Your task to perform on an android device: Search for usb-a on newegg.com, select the first entry, add it to the cart, then select checkout. Image 0: 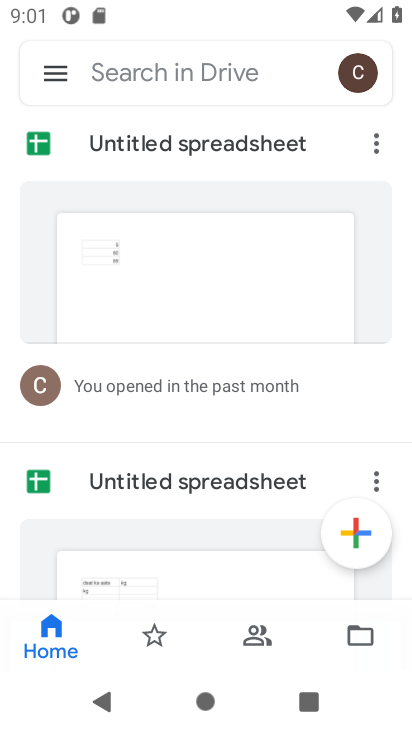
Step 0: press home button
Your task to perform on an android device: Search for usb-a on newegg.com, select the first entry, add it to the cart, then select checkout. Image 1: 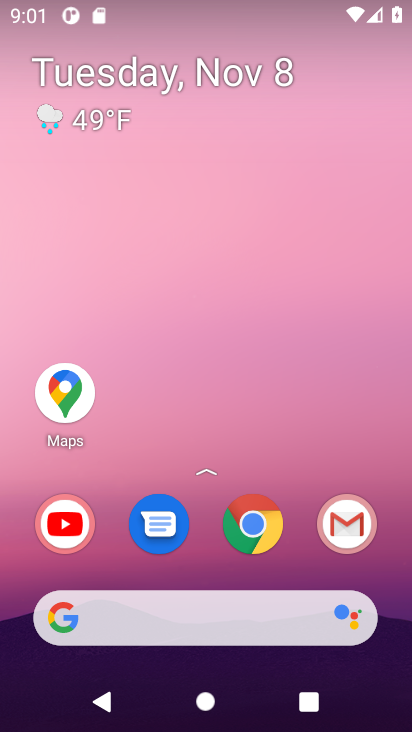
Step 1: click (243, 518)
Your task to perform on an android device: Search for usb-a on newegg.com, select the first entry, add it to the cart, then select checkout. Image 2: 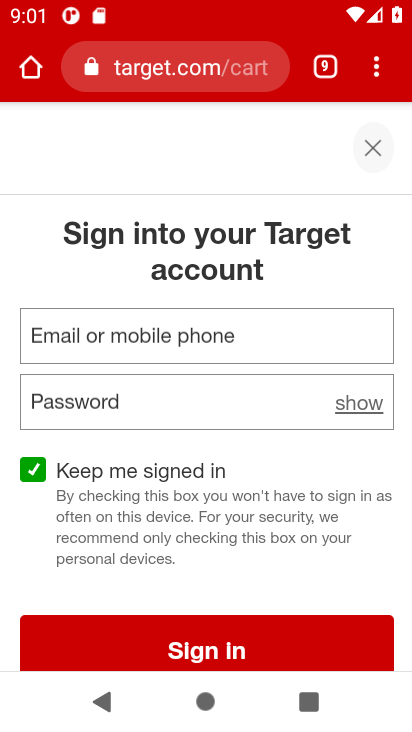
Step 2: click (193, 64)
Your task to perform on an android device: Search for usb-a on newegg.com, select the first entry, add it to the cart, then select checkout. Image 3: 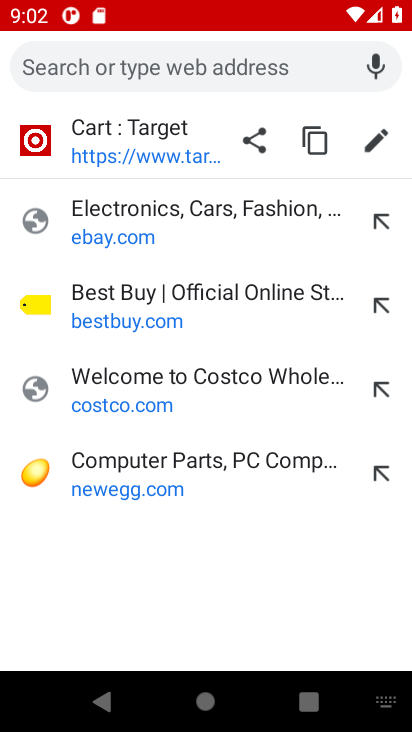
Step 3: click (103, 473)
Your task to perform on an android device: Search for usb-a on newegg.com, select the first entry, add it to the cart, then select checkout. Image 4: 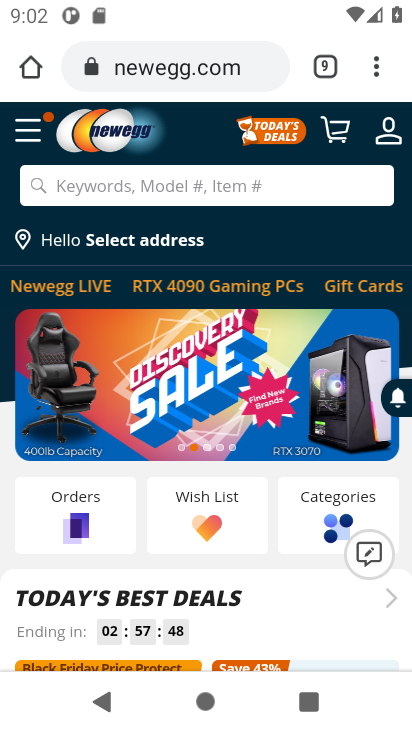
Step 4: click (145, 190)
Your task to perform on an android device: Search for usb-a on newegg.com, select the first entry, add it to the cart, then select checkout. Image 5: 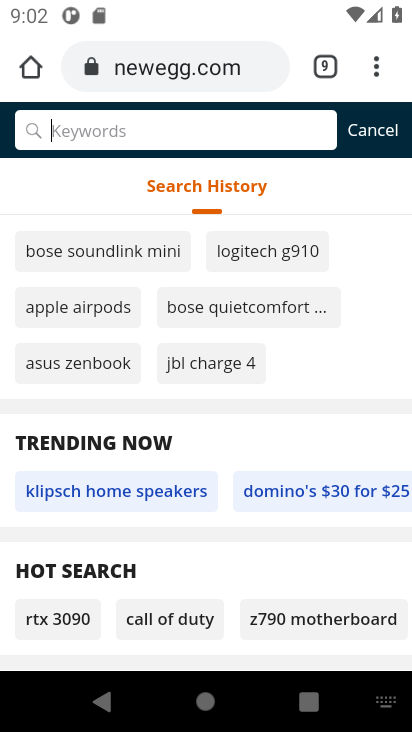
Step 5: type "usb-a"
Your task to perform on an android device: Search for usb-a on newegg.com, select the first entry, add it to the cart, then select checkout. Image 6: 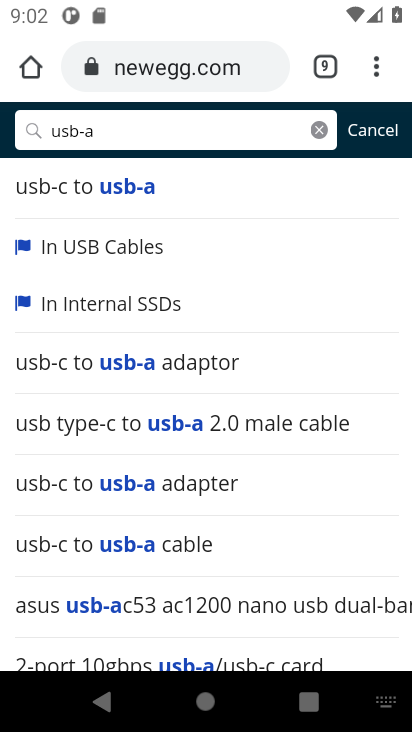
Step 6: click (32, 132)
Your task to perform on an android device: Search for usb-a on newegg.com, select the first entry, add it to the cart, then select checkout. Image 7: 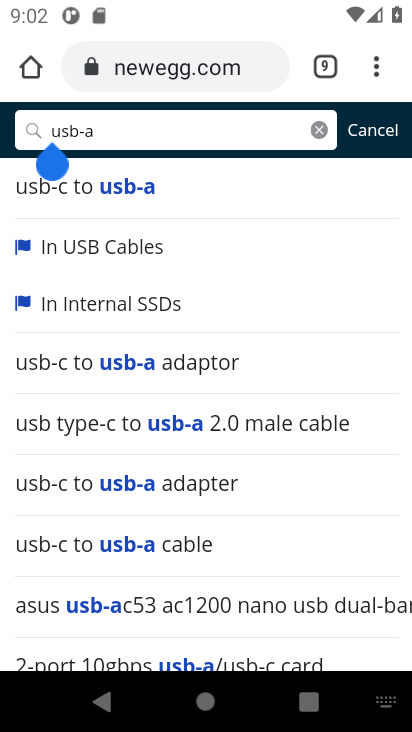
Step 7: drag from (246, 515) to (229, 315)
Your task to perform on an android device: Search for usb-a on newegg.com, select the first entry, add it to the cart, then select checkout. Image 8: 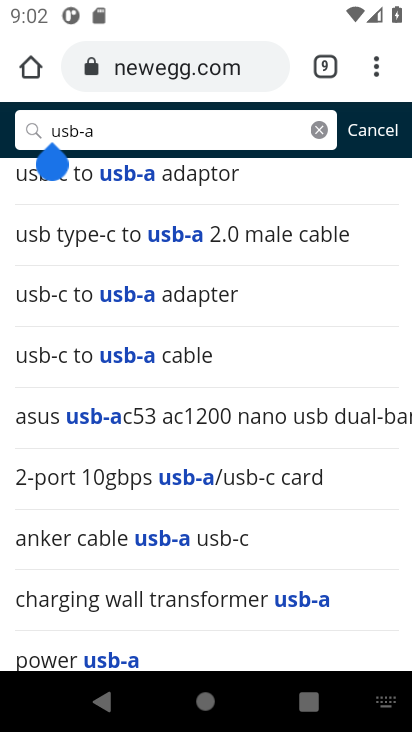
Step 8: drag from (218, 595) to (226, 348)
Your task to perform on an android device: Search for usb-a on newegg.com, select the first entry, add it to the cart, then select checkout. Image 9: 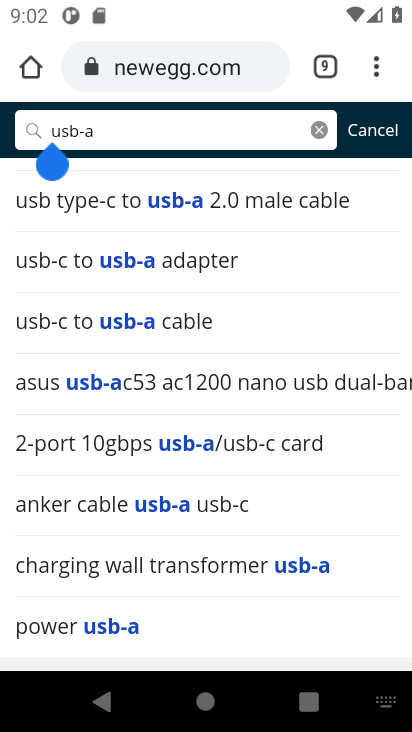
Step 9: click (128, 637)
Your task to perform on an android device: Search for usb-a on newegg.com, select the first entry, add it to the cart, then select checkout. Image 10: 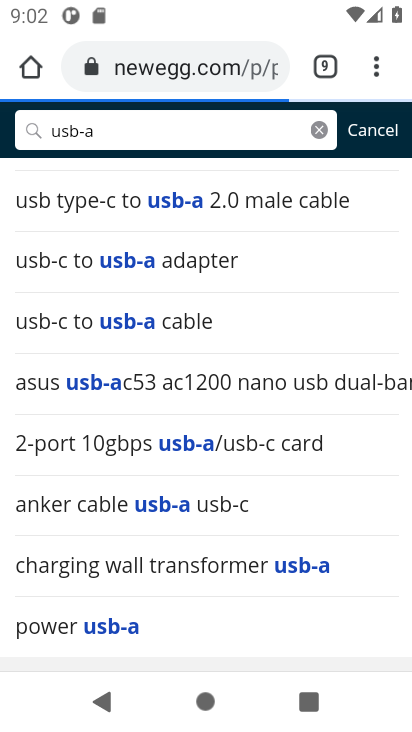
Step 10: click (111, 634)
Your task to perform on an android device: Search for usb-a on newegg.com, select the first entry, add it to the cart, then select checkout. Image 11: 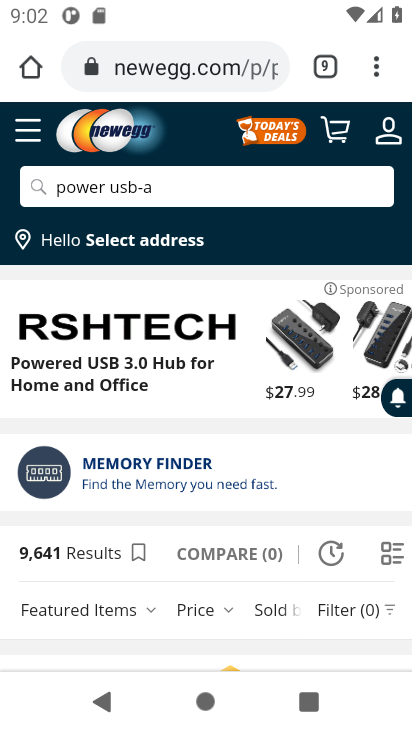
Step 11: task complete